Your task to perform on an android device: Go to battery settings Image 0: 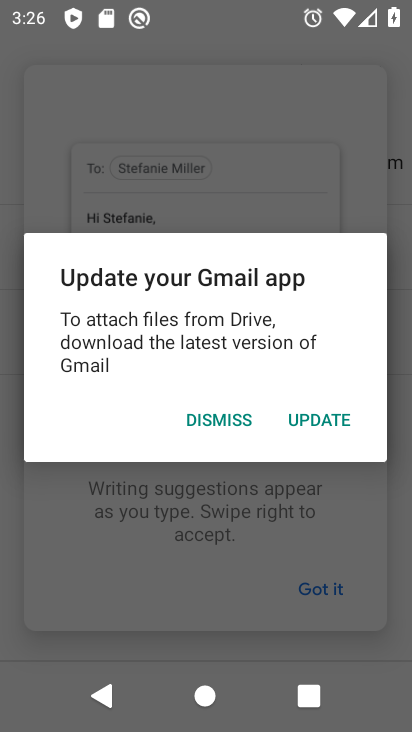
Step 0: press home button
Your task to perform on an android device: Go to battery settings Image 1: 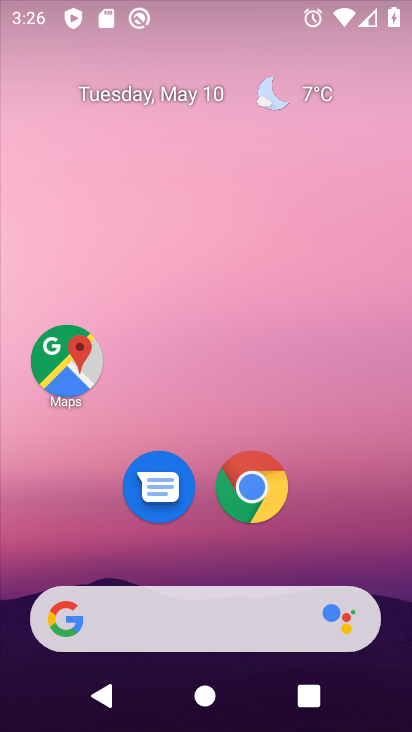
Step 1: drag from (310, 463) to (279, 91)
Your task to perform on an android device: Go to battery settings Image 2: 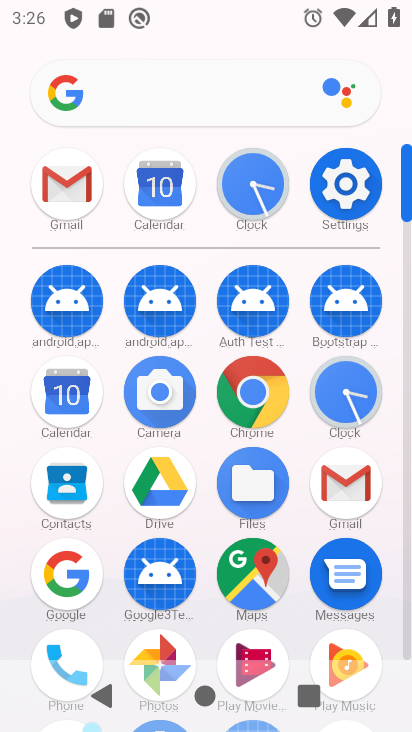
Step 2: click (358, 186)
Your task to perform on an android device: Go to battery settings Image 3: 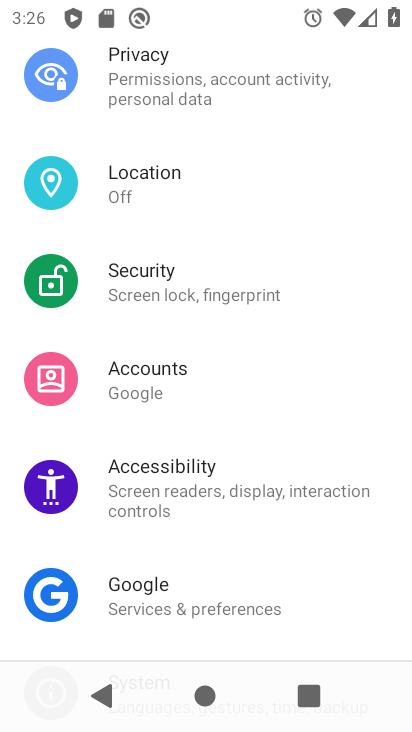
Step 3: drag from (226, 240) to (222, 565)
Your task to perform on an android device: Go to battery settings Image 4: 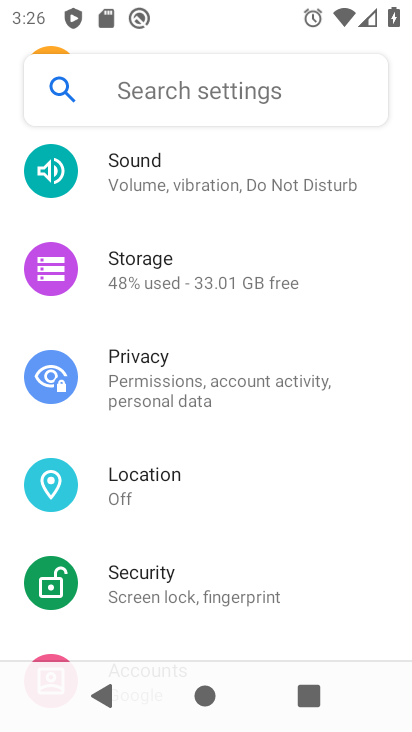
Step 4: drag from (218, 302) to (214, 541)
Your task to perform on an android device: Go to battery settings Image 5: 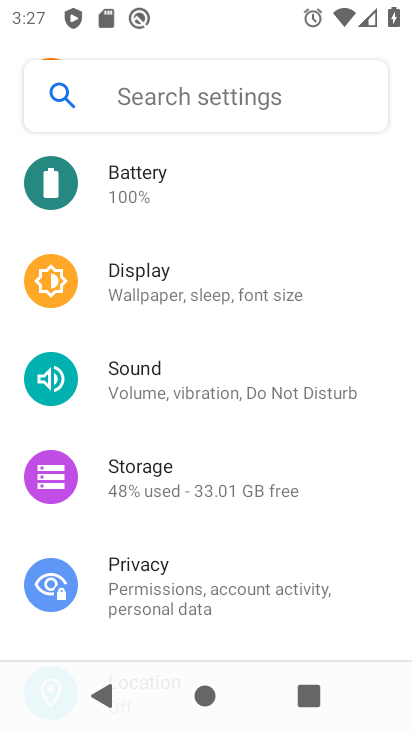
Step 5: click (158, 193)
Your task to perform on an android device: Go to battery settings Image 6: 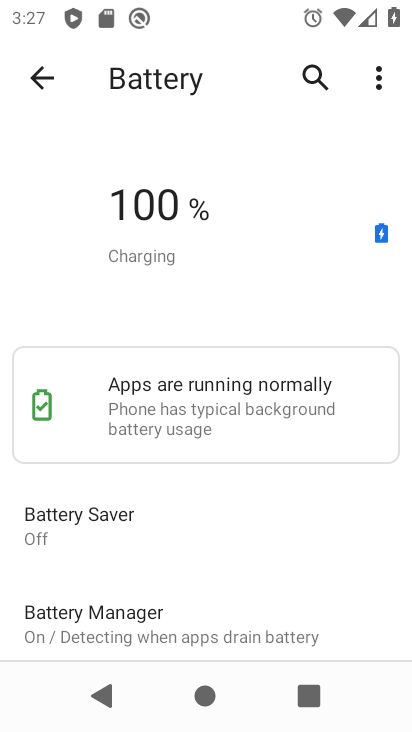
Step 6: task complete